Your task to perform on an android device: turn vacation reply on in the gmail app Image 0: 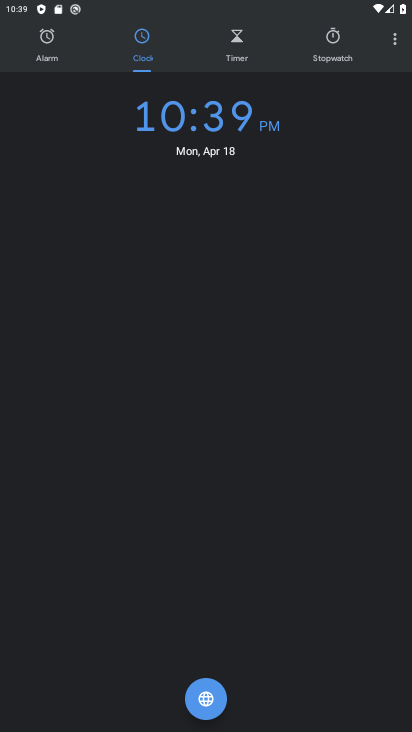
Step 0: press home button
Your task to perform on an android device: turn vacation reply on in the gmail app Image 1: 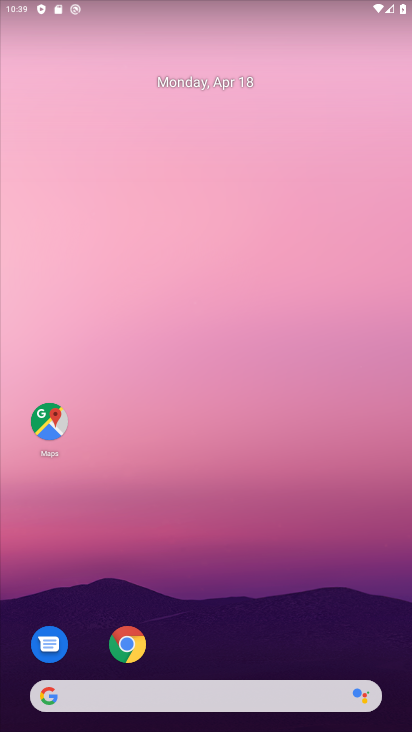
Step 1: drag from (193, 671) to (219, 238)
Your task to perform on an android device: turn vacation reply on in the gmail app Image 2: 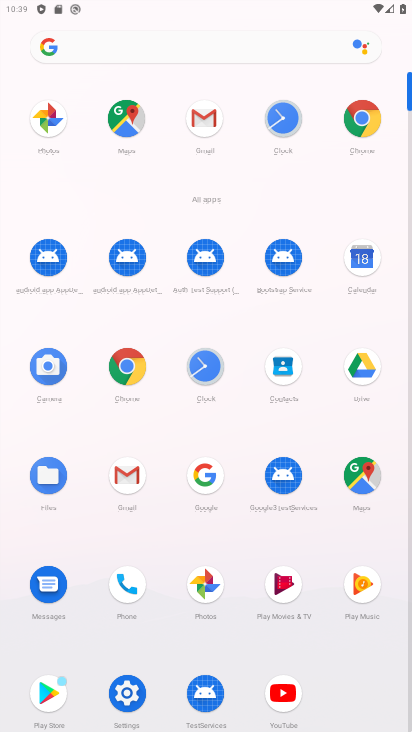
Step 2: click (187, 120)
Your task to perform on an android device: turn vacation reply on in the gmail app Image 3: 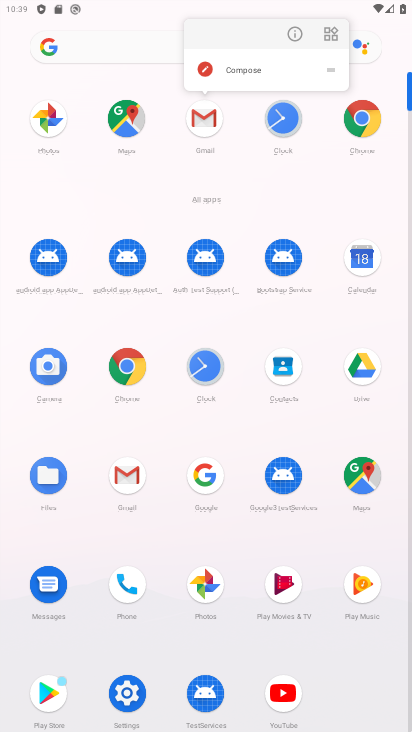
Step 3: click (131, 472)
Your task to perform on an android device: turn vacation reply on in the gmail app Image 4: 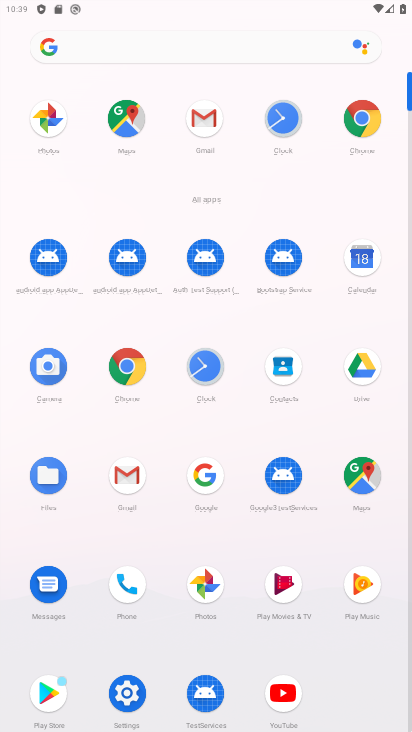
Step 4: click (130, 479)
Your task to perform on an android device: turn vacation reply on in the gmail app Image 5: 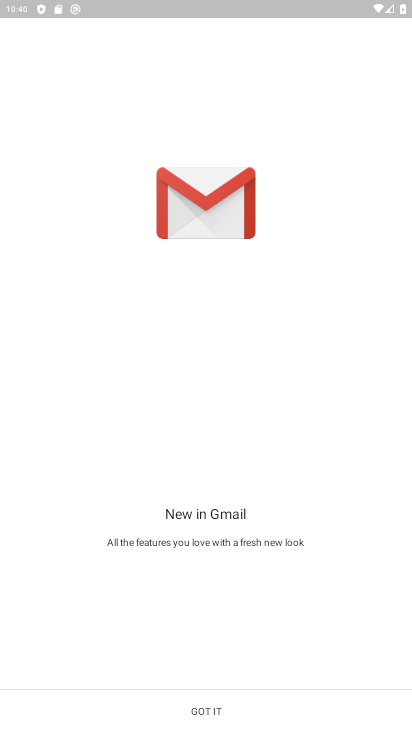
Step 5: click (221, 707)
Your task to perform on an android device: turn vacation reply on in the gmail app Image 6: 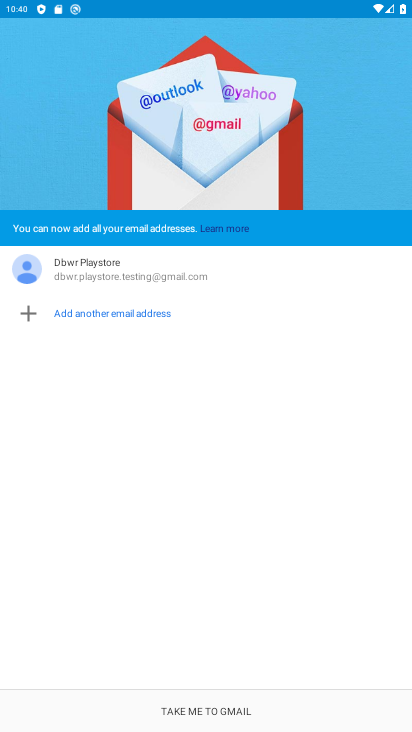
Step 6: click (229, 714)
Your task to perform on an android device: turn vacation reply on in the gmail app Image 7: 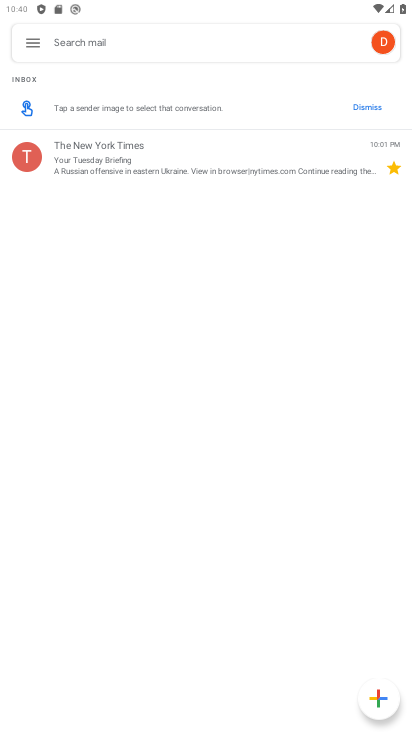
Step 7: click (32, 47)
Your task to perform on an android device: turn vacation reply on in the gmail app Image 8: 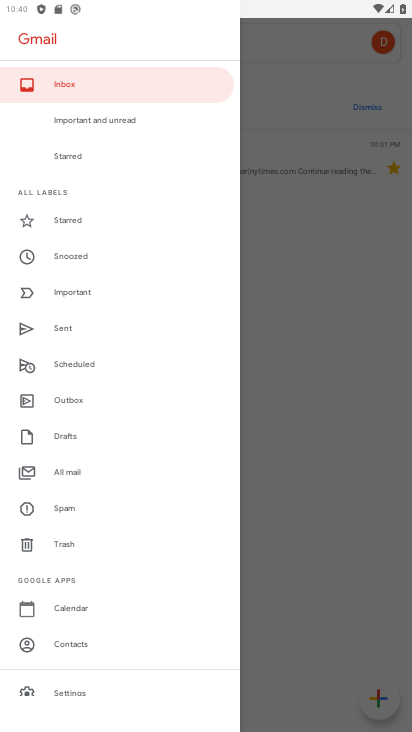
Step 8: click (86, 696)
Your task to perform on an android device: turn vacation reply on in the gmail app Image 9: 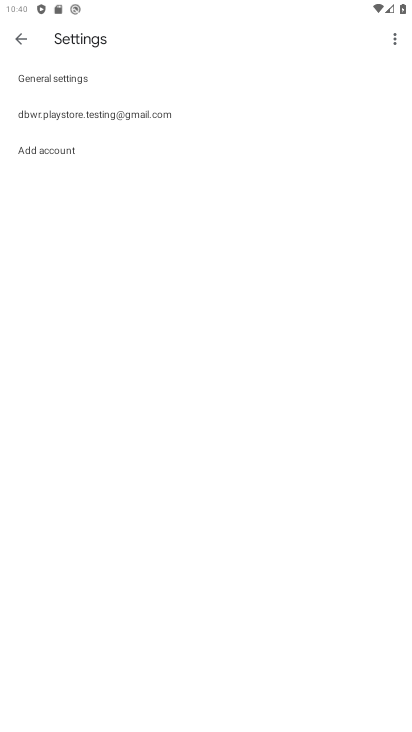
Step 9: click (126, 113)
Your task to perform on an android device: turn vacation reply on in the gmail app Image 10: 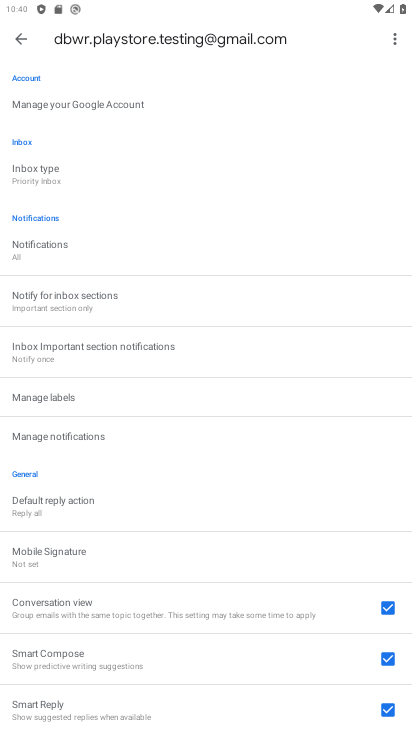
Step 10: drag from (85, 510) to (97, 375)
Your task to perform on an android device: turn vacation reply on in the gmail app Image 11: 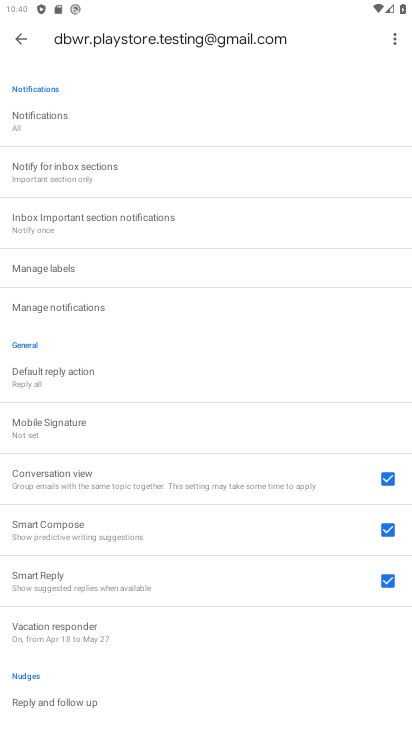
Step 11: drag from (152, 727) to (151, 598)
Your task to perform on an android device: turn vacation reply on in the gmail app Image 12: 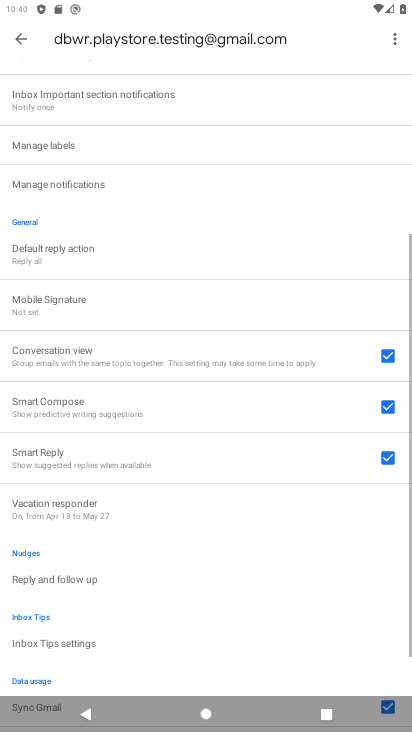
Step 12: drag from (138, 657) to (125, 291)
Your task to perform on an android device: turn vacation reply on in the gmail app Image 13: 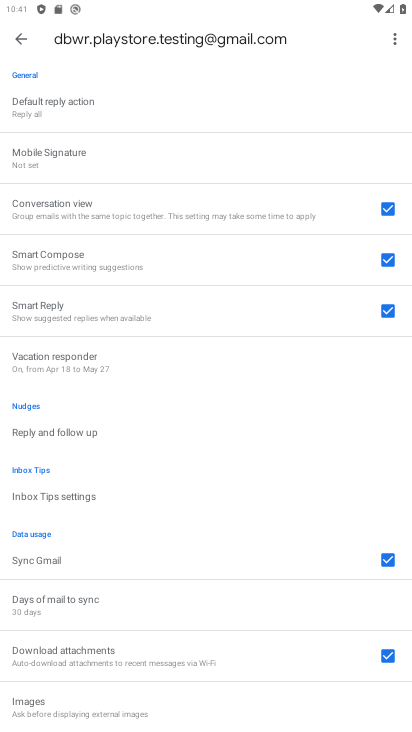
Step 13: click (44, 369)
Your task to perform on an android device: turn vacation reply on in the gmail app Image 14: 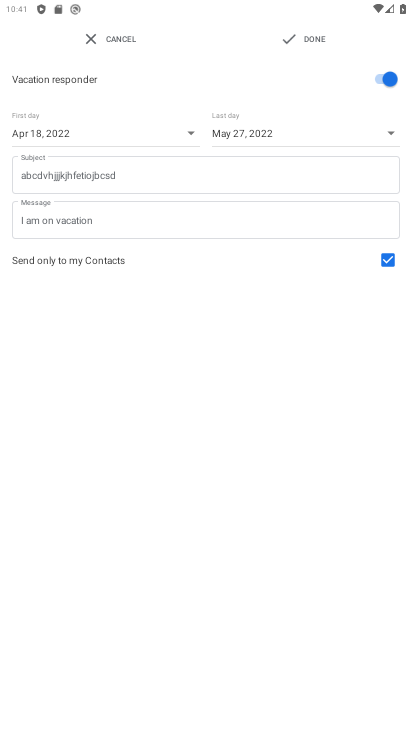
Step 14: task complete